Your task to perform on an android device: open chrome privacy settings Image 0: 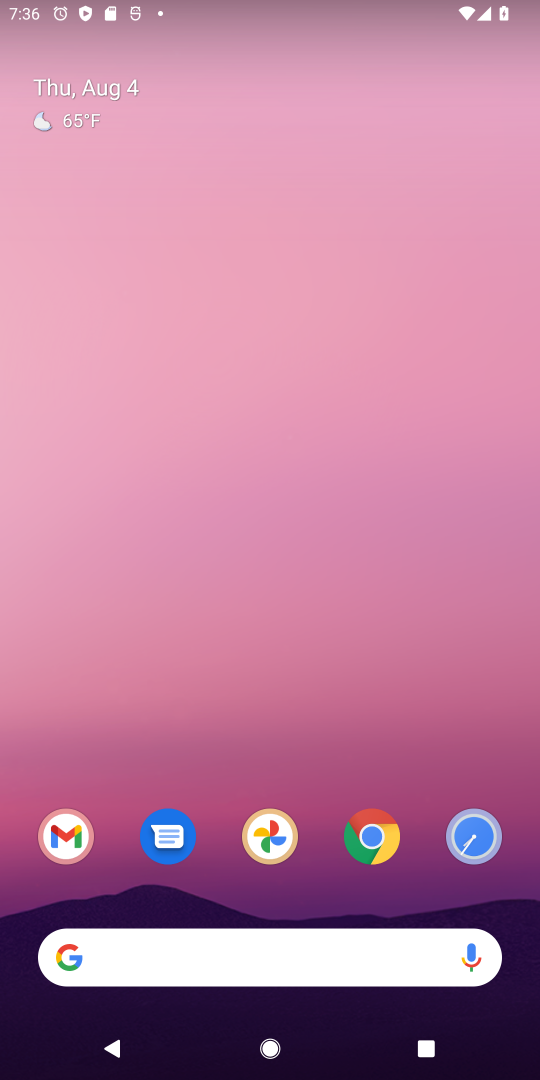
Step 0: click (354, 840)
Your task to perform on an android device: open chrome privacy settings Image 1: 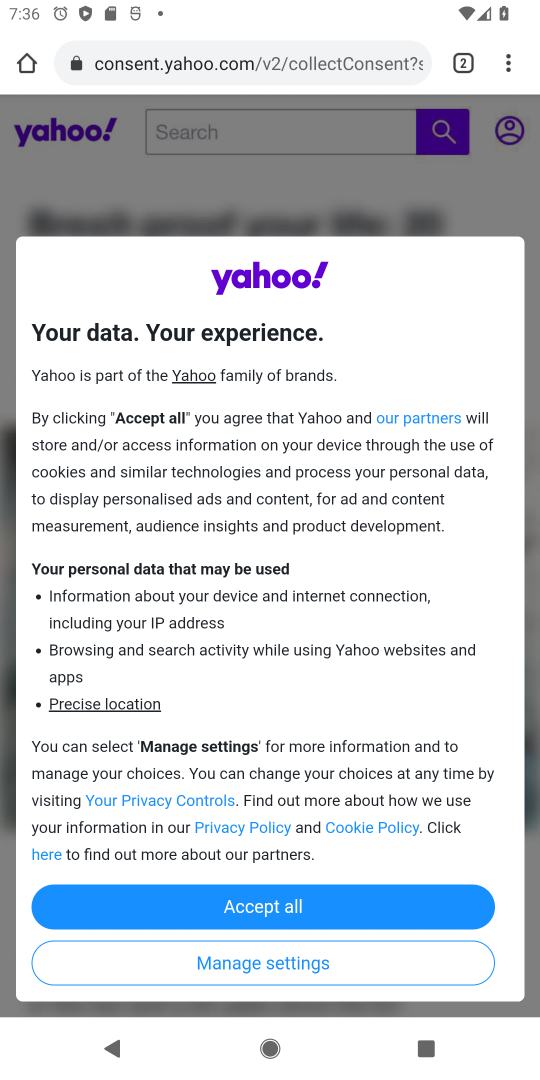
Step 1: drag from (511, 62) to (353, 818)
Your task to perform on an android device: open chrome privacy settings Image 2: 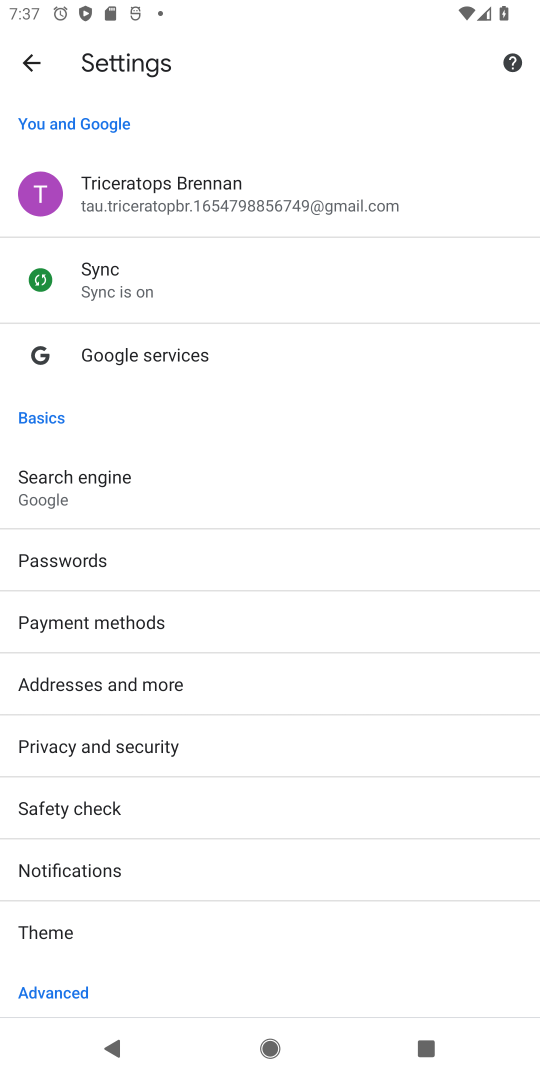
Step 2: press back button
Your task to perform on an android device: open chrome privacy settings Image 3: 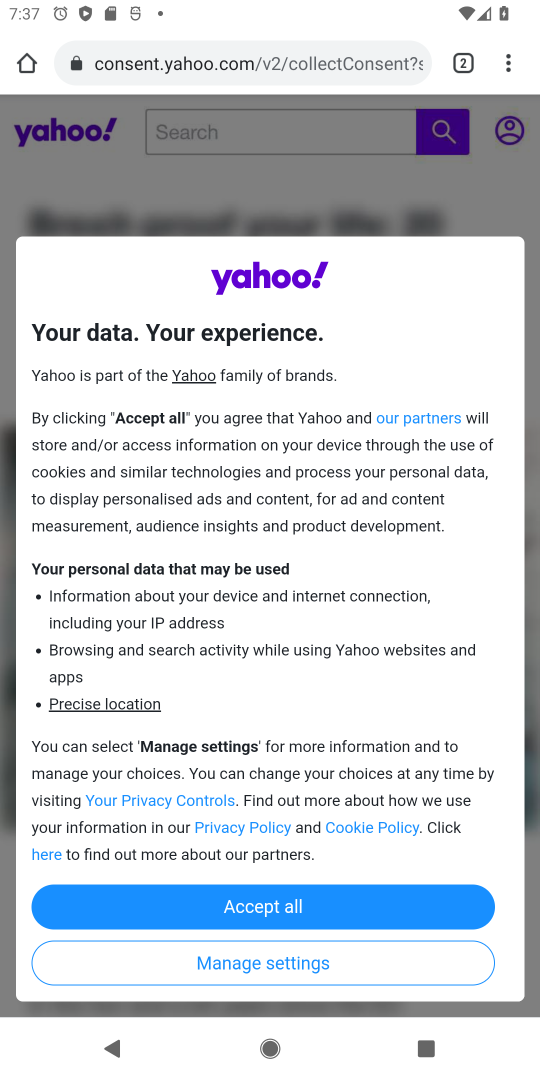
Step 3: drag from (499, 56) to (343, 815)
Your task to perform on an android device: open chrome privacy settings Image 4: 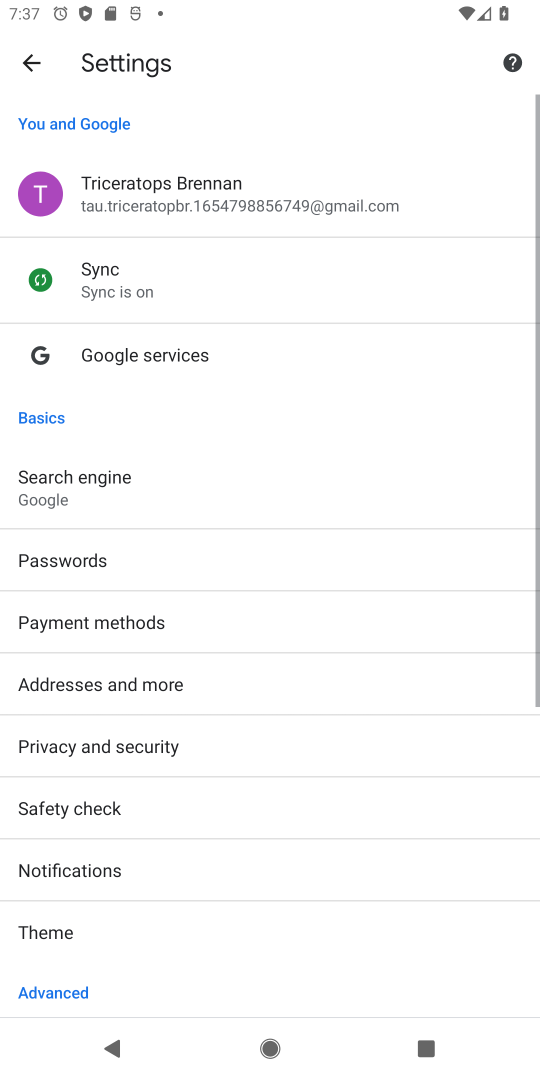
Step 4: drag from (108, 923) to (323, 141)
Your task to perform on an android device: open chrome privacy settings Image 5: 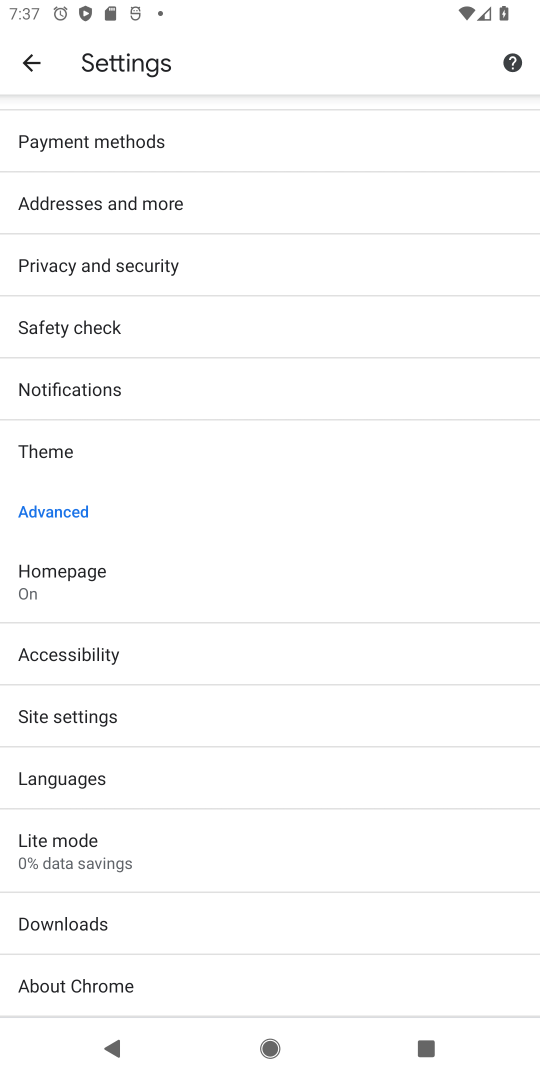
Step 5: click (121, 258)
Your task to perform on an android device: open chrome privacy settings Image 6: 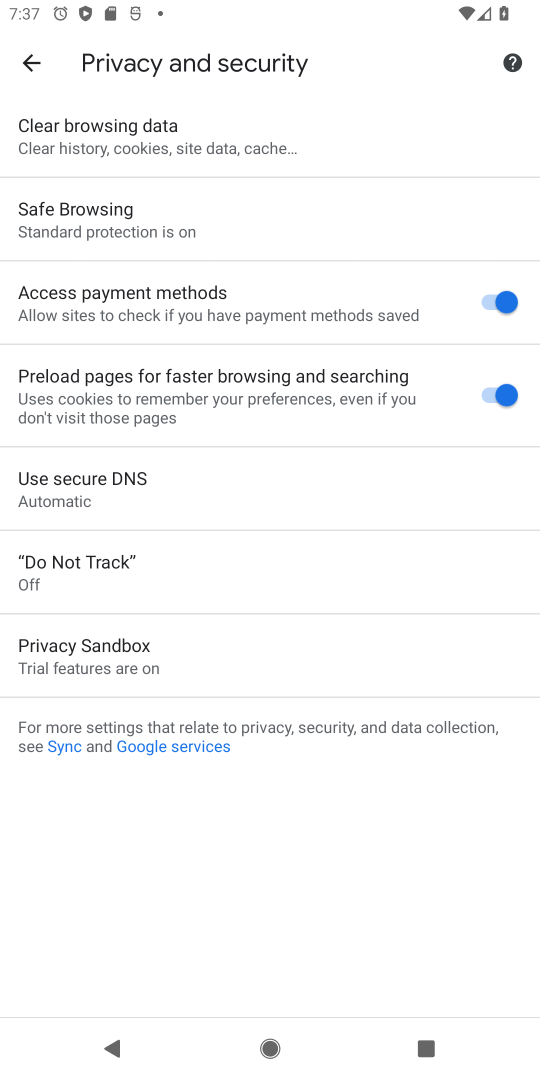
Step 6: task complete